Your task to perform on an android device: toggle pop-ups in chrome Image 0: 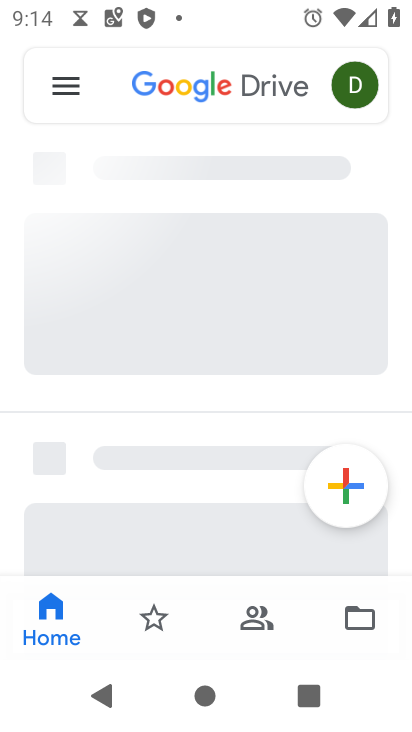
Step 0: drag from (363, 519) to (319, 0)
Your task to perform on an android device: toggle pop-ups in chrome Image 1: 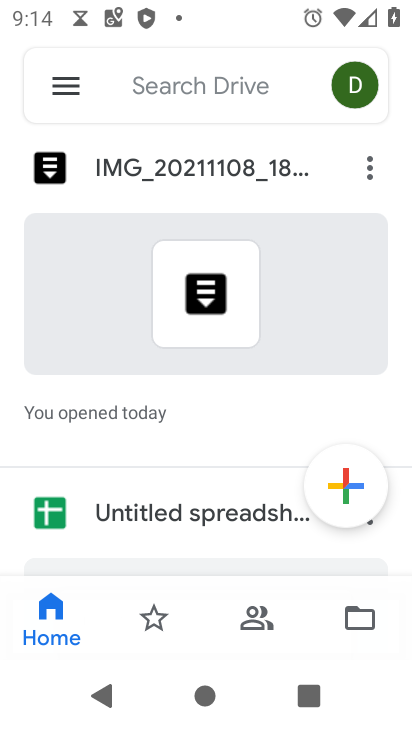
Step 1: press home button
Your task to perform on an android device: toggle pop-ups in chrome Image 2: 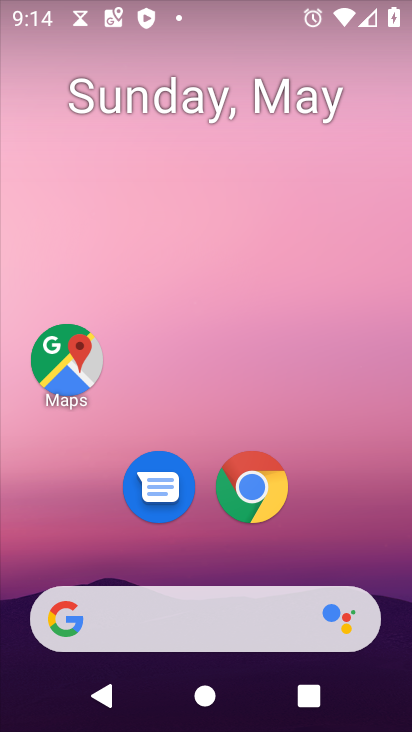
Step 2: click (265, 462)
Your task to perform on an android device: toggle pop-ups in chrome Image 3: 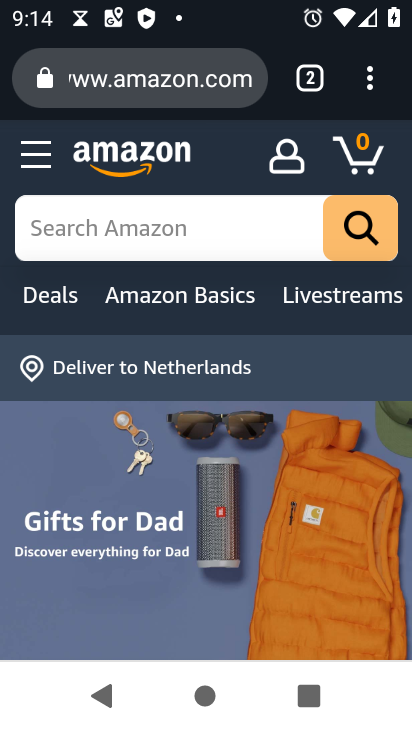
Step 3: drag from (366, 72) to (149, 564)
Your task to perform on an android device: toggle pop-ups in chrome Image 4: 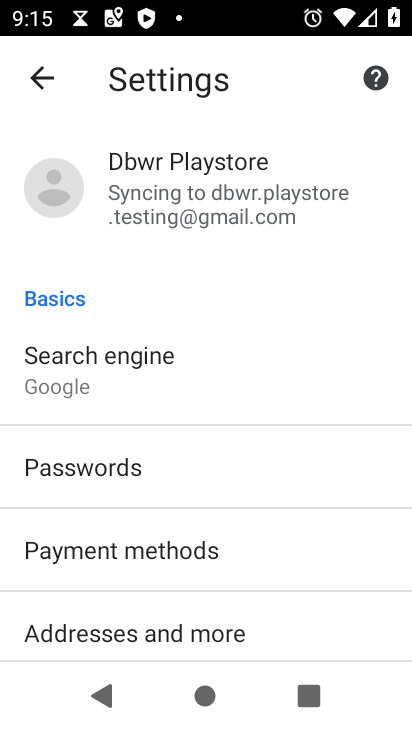
Step 4: drag from (149, 564) to (122, 277)
Your task to perform on an android device: toggle pop-ups in chrome Image 5: 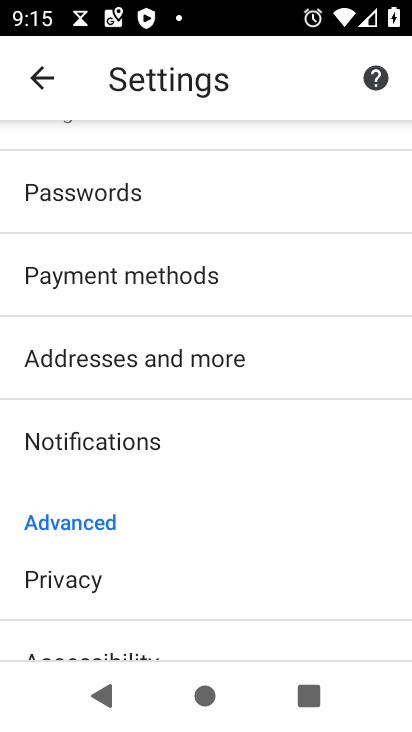
Step 5: drag from (125, 542) to (181, 187)
Your task to perform on an android device: toggle pop-ups in chrome Image 6: 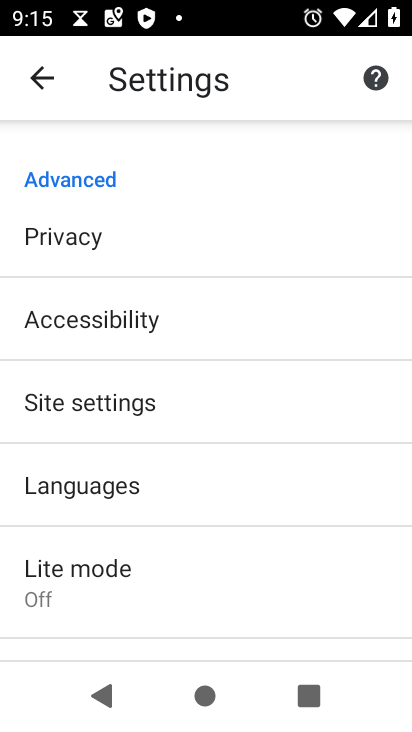
Step 6: click (79, 419)
Your task to perform on an android device: toggle pop-ups in chrome Image 7: 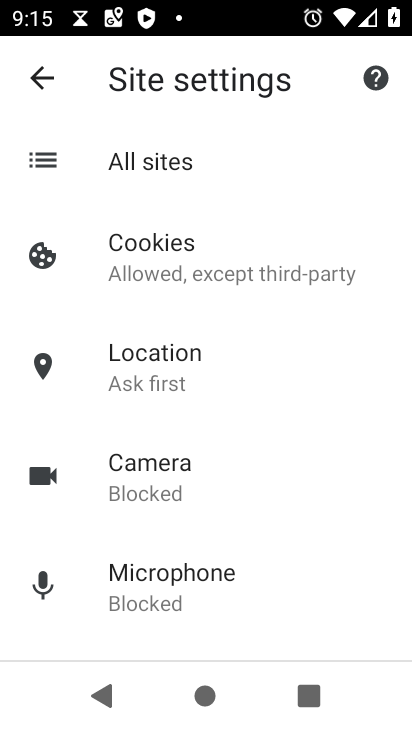
Step 7: drag from (88, 568) to (114, 258)
Your task to perform on an android device: toggle pop-ups in chrome Image 8: 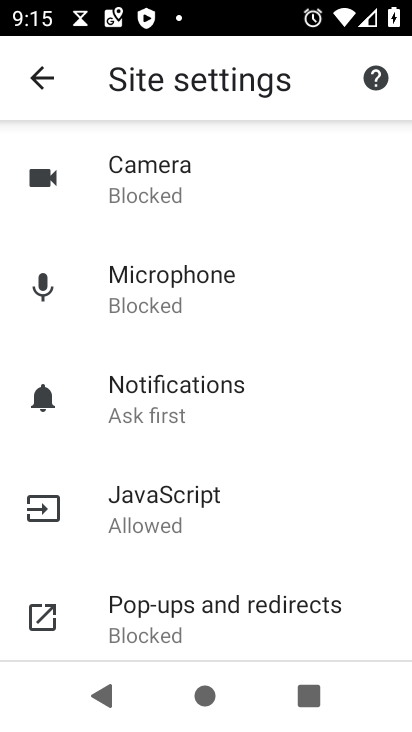
Step 8: drag from (103, 560) to (110, 300)
Your task to perform on an android device: toggle pop-ups in chrome Image 9: 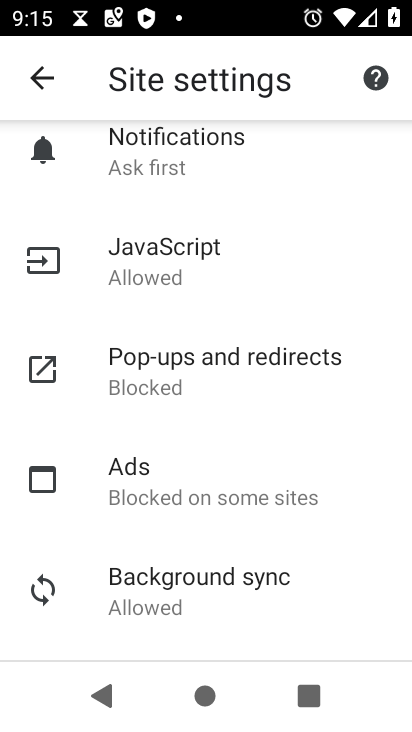
Step 9: click (104, 376)
Your task to perform on an android device: toggle pop-ups in chrome Image 10: 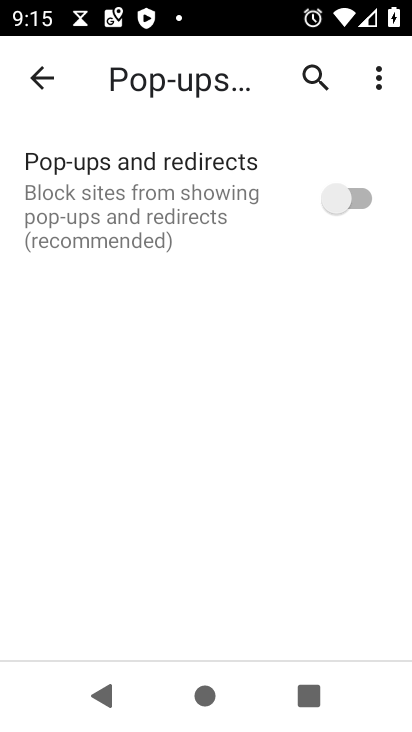
Step 10: click (362, 196)
Your task to perform on an android device: toggle pop-ups in chrome Image 11: 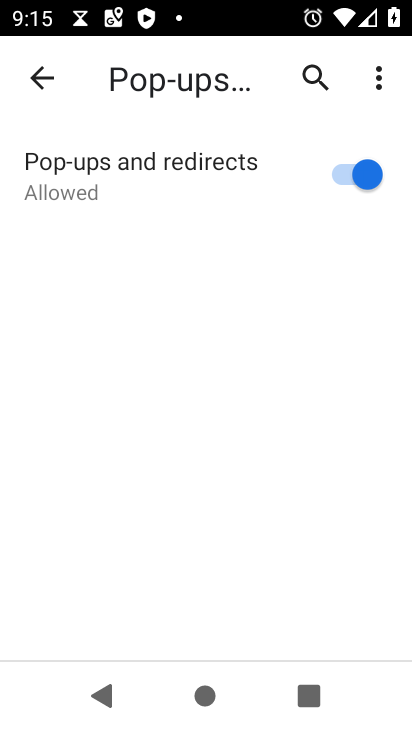
Step 11: task complete